Your task to perform on an android device: Search for rayovac triple a on ebay, select the first entry, add it to the cart, then select checkout. Image 0: 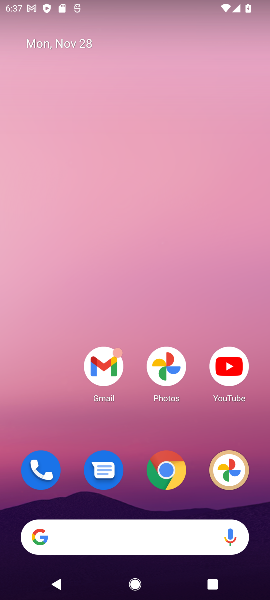
Step 0: drag from (136, 480) to (148, 87)
Your task to perform on an android device: Search for rayovac triple a on ebay, select the first entry, add it to the cart, then select checkout. Image 1: 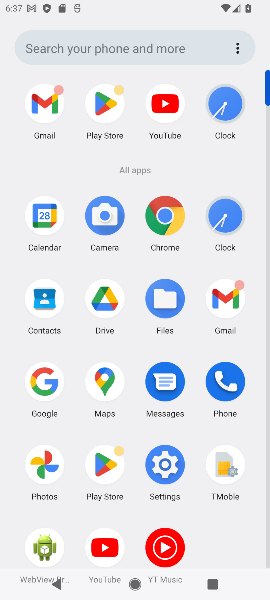
Step 1: click (156, 216)
Your task to perform on an android device: Search for rayovac triple a on ebay, select the first entry, add it to the cart, then select checkout. Image 2: 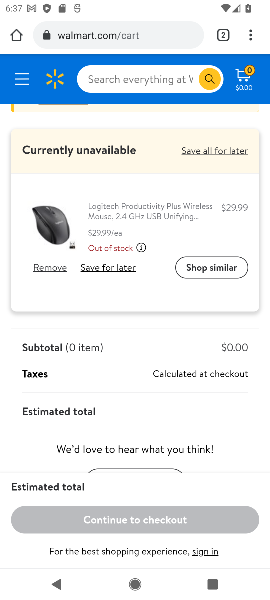
Step 2: click (135, 74)
Your task to perform on an android device: Search for rayovac triple a on ebay, select the first entry, add it to the cart, then select checkout. Image 3: 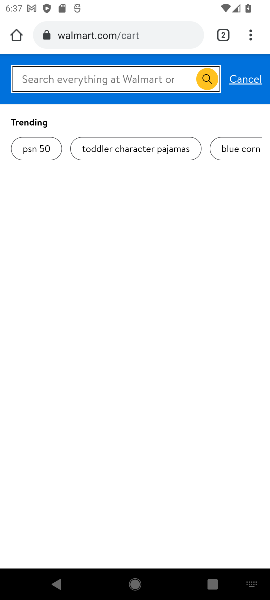
Step 3: click (109, 39)
Your task to perform on an android device: Search for rayovac triple a on ebay, select the first entry, add it to the cart, then select checkout. Image 4: 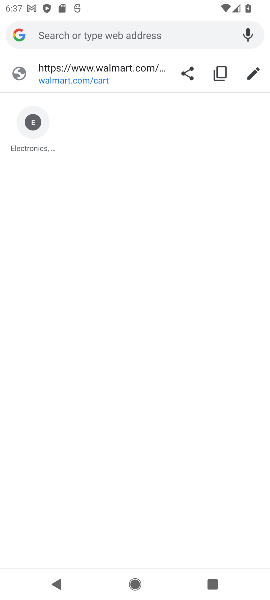
Step 4: type " ebay"
Your task to perform on an android device: Search for rayovac triple a on ebay, select the first entry, add it to the cart, then select checkout. Image 5: 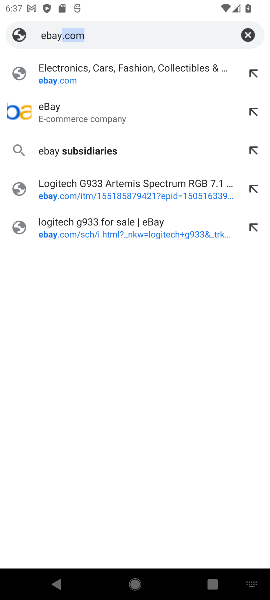
Step 5: click (41, 114)
Your task to perform on an android device: Search for rayovac triple a on ebay, select the first entry, add it to the cart, then select checkout. Image 6: 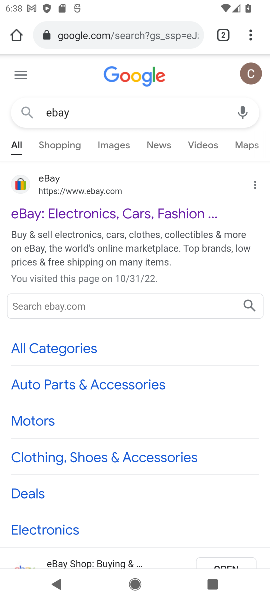
Step 6: click (44, 187)
Your task to perform on an android device: Search for rayovac triple a on ebay, select the first entry, add it to the cart, then select checkout. Image 7: 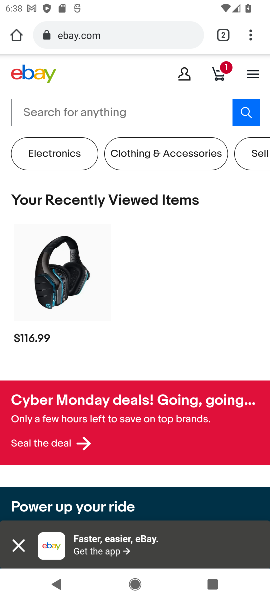
Step 7: click (22, 545)
Your task to perform on an android device: Search for rayovac triple a on ebay, select the first entry, add it to the cart, then select checkout. Image 8: 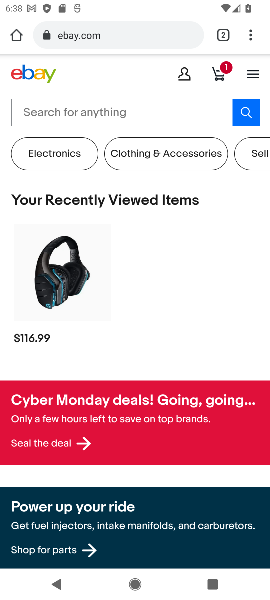
Step 8: drag from (126, 479) to (159, 323)
Your task to perform on an android device: Search for rayovac triple a on ebay, select the first entry, add it to the cart, then select checkout. Image 9: 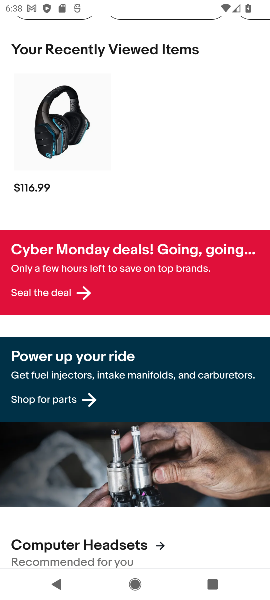
Step 9: drag from (95, 455) to (148, 273)
Your task to perform on an android device: Search for rayovac triple a on ebay, select the first entry, add it to the cart, then select checkout. Image 10: 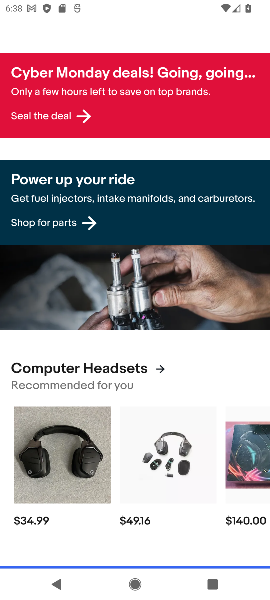
Step 10: drag from (131, 380) to (141, 256)
Your task to perform on an android device: Search for rayovac triple a on ebay, select the first entry, add it to the cart, then select checkout. Image 11: 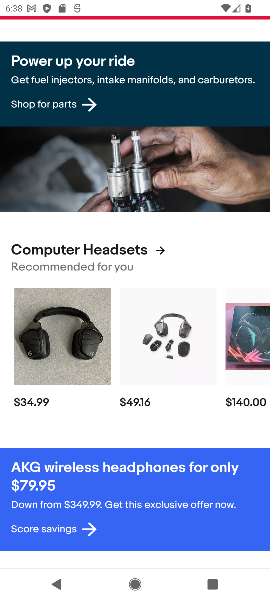
Step 11: drag from (141, 290) to (139, 413)
Your task to perform on an android device: Search for rayovac triple a on ebay, select the first entry, add it to the cart, then select checkout. Image 12: 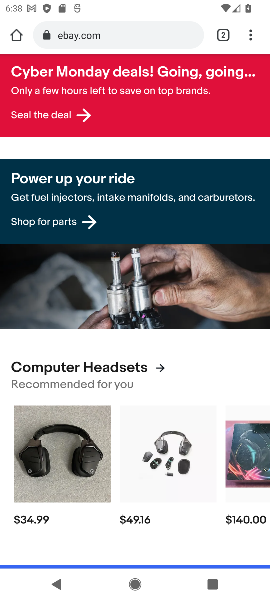
Step 12: drag from (160, 203) to (158, 501)
Your task to perform on an android device: Search for rayovac triple a on ebay, select the first entry, add it to the cart, then select checkout. Image 13: 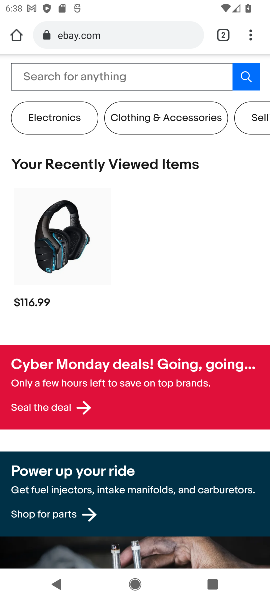
Step 13: click (59, 234)
Your task to perform on an android device: Search for rayovac triple a on ebay, select the first entry, add it to the cart, then select checkout. Image 14: 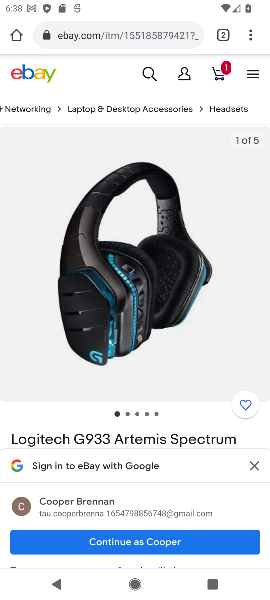
Step 14: drag from (124, 481) to (162, 327)
Your task to perform on an android device: Search for rayovac triple a on ebay, select the first entry, add it to the cart, then select checkout. Image 15: 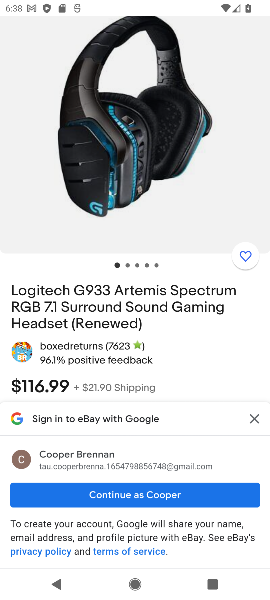
Step 15: click (258, 420)
Your task to perform on an android device: Search for rayovac triple a on ebay, select the first entry, add it to the cart, then select checkout. Image 16: 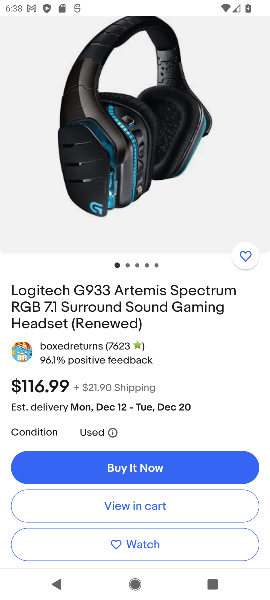
Step 16: click (128, 509)
Your task to perform on an android device: Search for rayovac triple a on ebay, select the first entry, add it to the cart, then select checkout. Image 17: 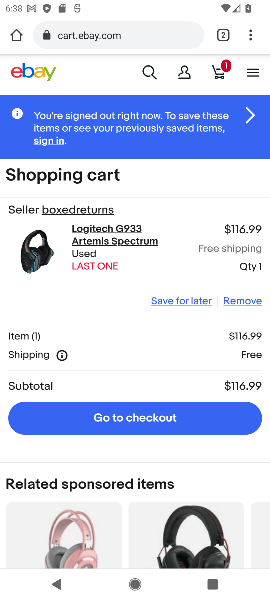
Step 17: click (129, 424)
Your task to perform on an android device: Search for rayovac triple a on ebay, select the first entry, add it to the cart, then select checkout. Image 18: 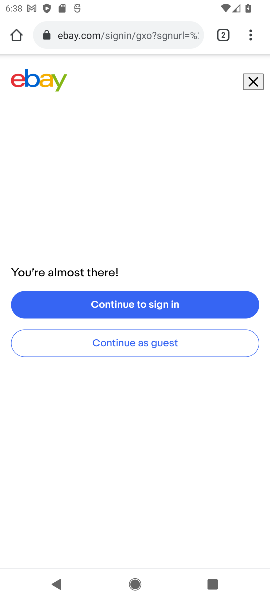
Step 18: task complete